Your task to perform on an android device: create a new album in the google photos Image 0: 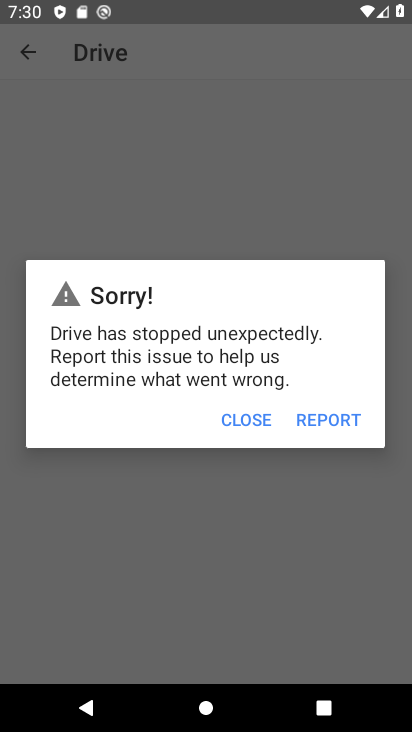
Step 0: press home button
Your task to perform on an android device: create a new album in the google photos Image 1: 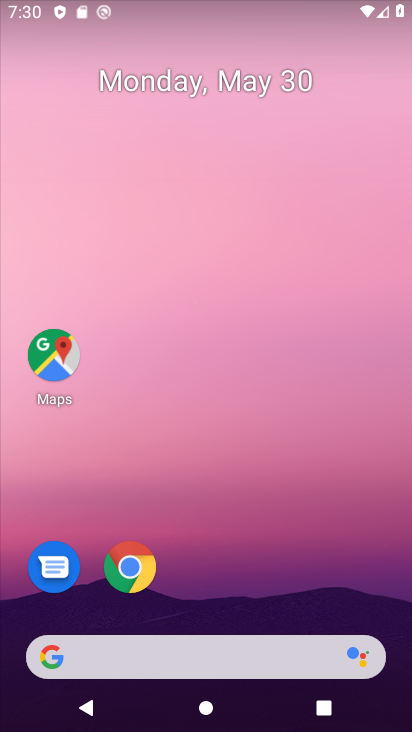
Step 1: drag from (273, 592) to (215, 156)
Your task to perform on an android device: create a new album in the google photos Image 2: 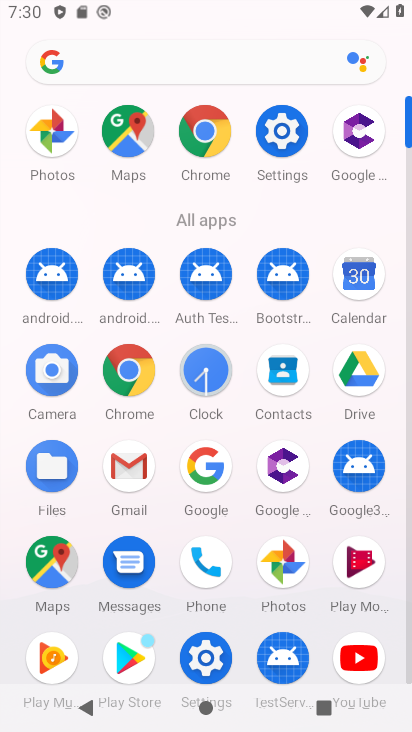
Step 2: click (284, 568)
Your task to perform on an android device: create a new album in the google photos Image 3: 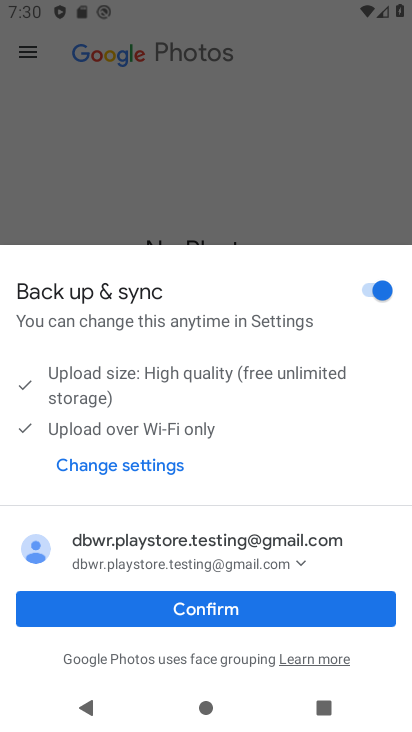
Step 3: click (254, 624)
Your task to perform on an android device: create a new album in the google photos Image 4: 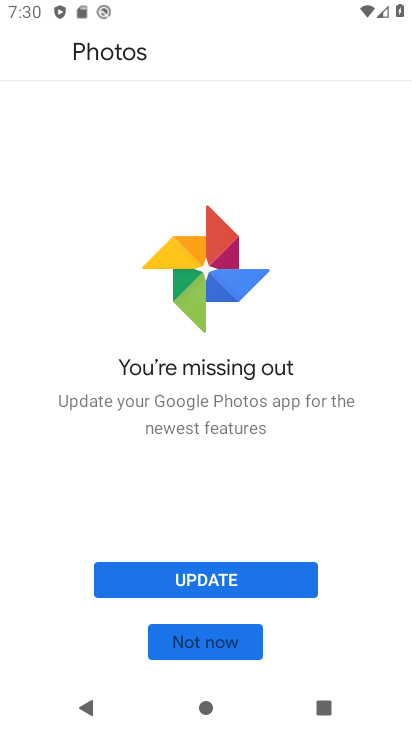
Step 4: click (239, 567)
Your task to perform on an android device: create a new album in the google photos Image 5: 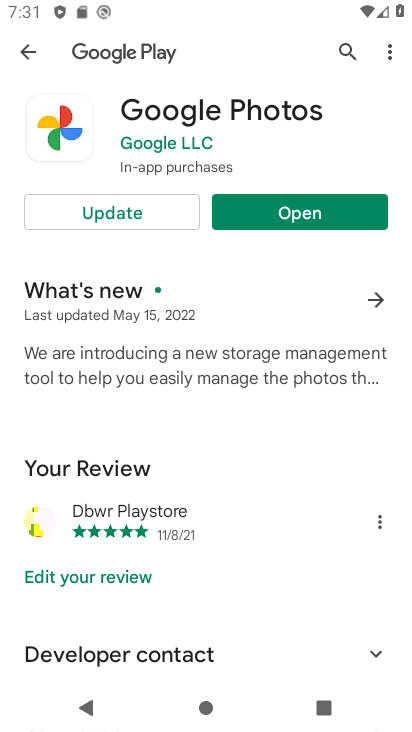
Step 5: click (137, 218)
Your task to perform on an android device: create a new album in the google photos Image 6: 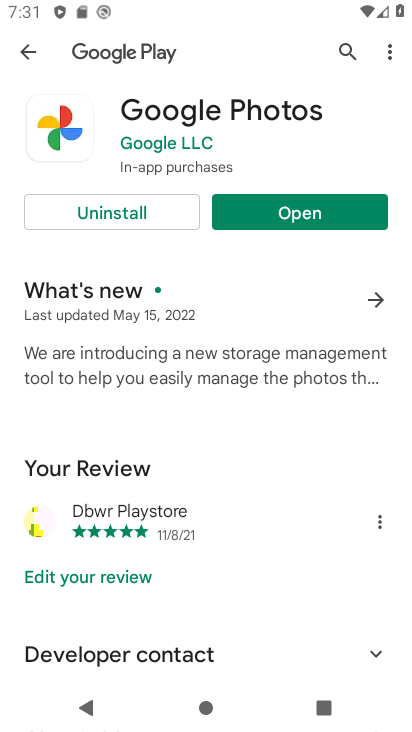
Step 6: click (285, 215)
Your task to perform on an android device: create a new album in the google photos Image 7: 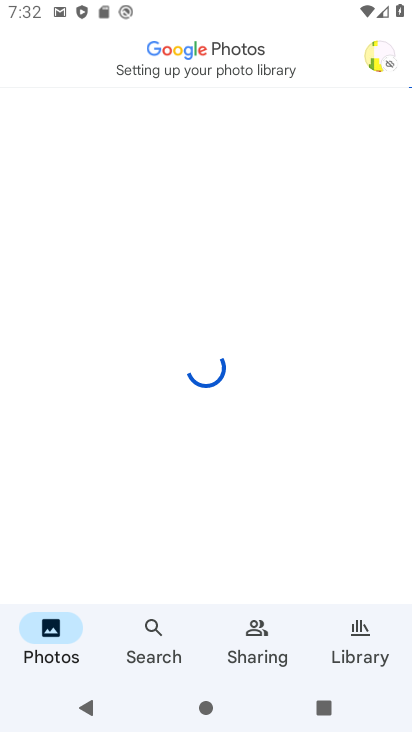
Step 7: click (347, 639)
Your task to perform on an android device: create a new album in the google photos Image 8: 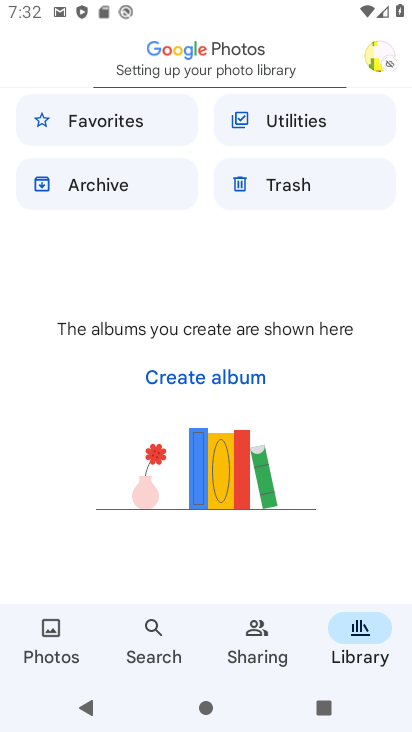
Step 8: click (248, 376)
Your task to perform on an android device: create a new album in the google photos Image 9: 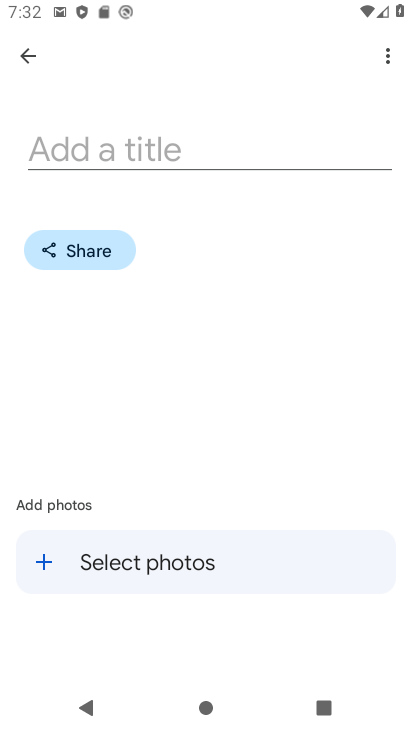
Step 9: click (158, 139)
Your task to perform on an android device: create a new album in the google photos Image 10: 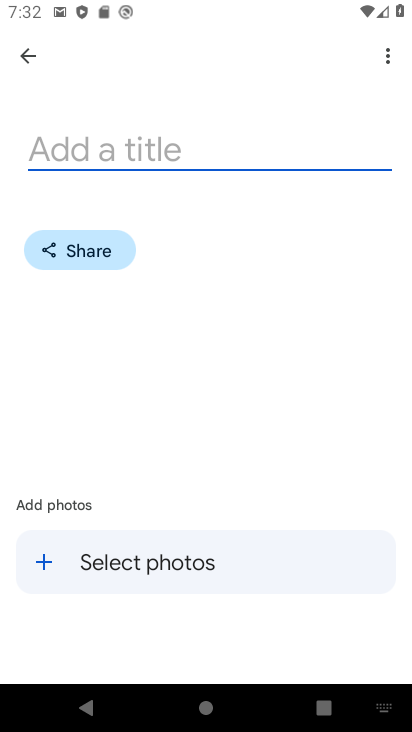
Step 10: type "kjkj"
Your task to perform on an android device: create a new album in the google photos Image 11: 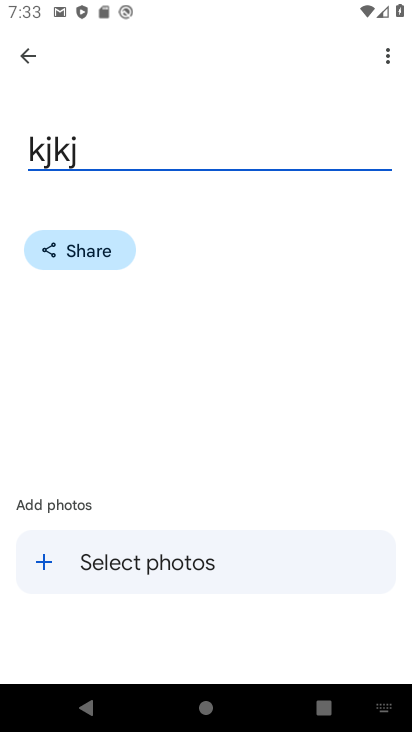
Step 11: click (197, 551)
Your task to perform on an android device: create a new album in the google photos Image 12: 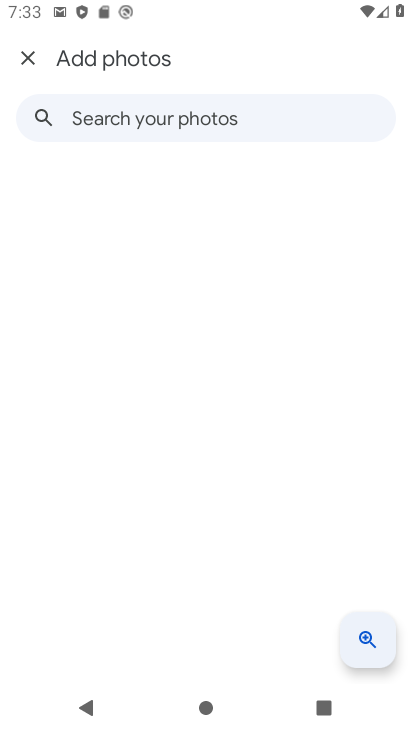
Step 12: click (118, 44)
Your task to perform on an android device: create a new album in the google photos Image 13: 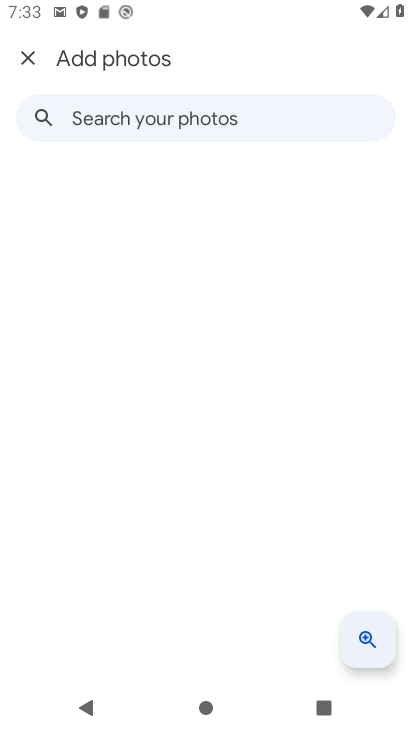
Step 13: task complete